Your task to perform on an android device: toggle translation in the chrome app Image 0: 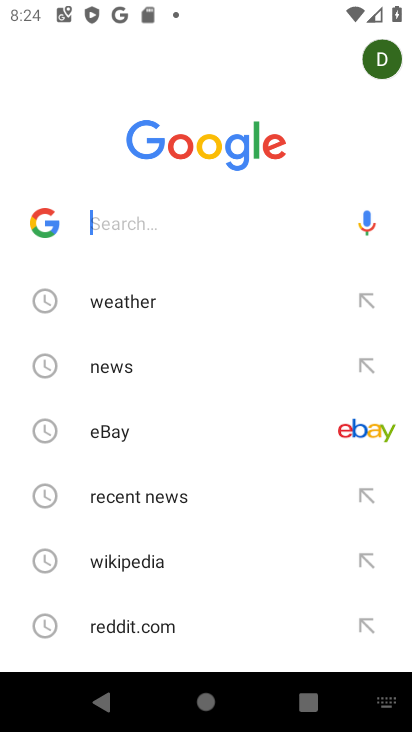
Step 0: press home button
Your task to perform on an android device: toggle translation in the chrome app Image 1: 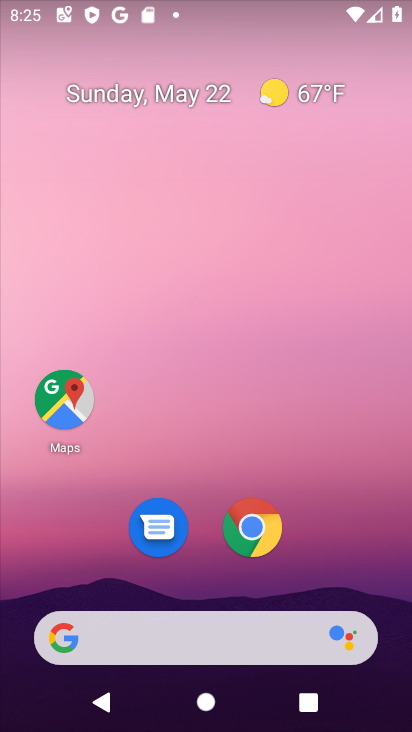
Step 1: click (250, 518)
Your task to perform on an android device: toggle translation in the chrome app Image 2: 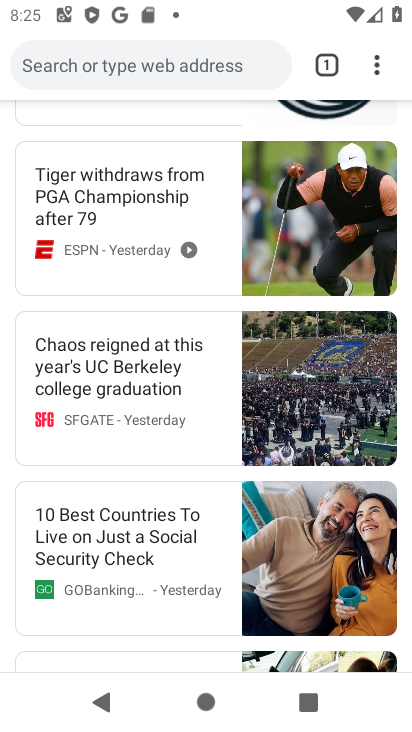
Step 2: click (372, 61)
Your task to perform on an android device: toggle translation in the chrome app Image 3: 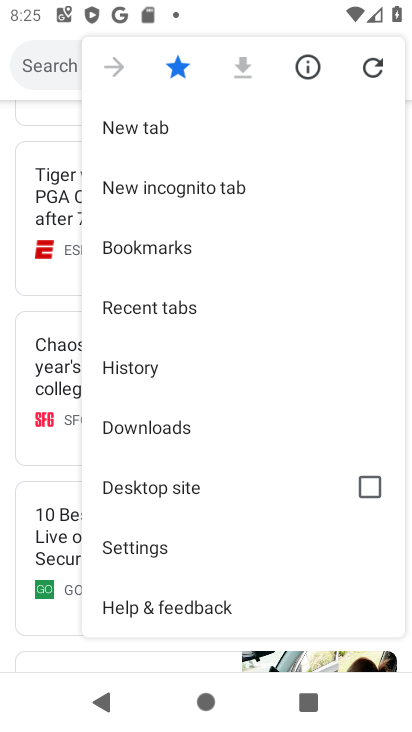
Step 3: click (187, 540)
Your task to perform on an android device: toggle translation in the chrome app Image 4: 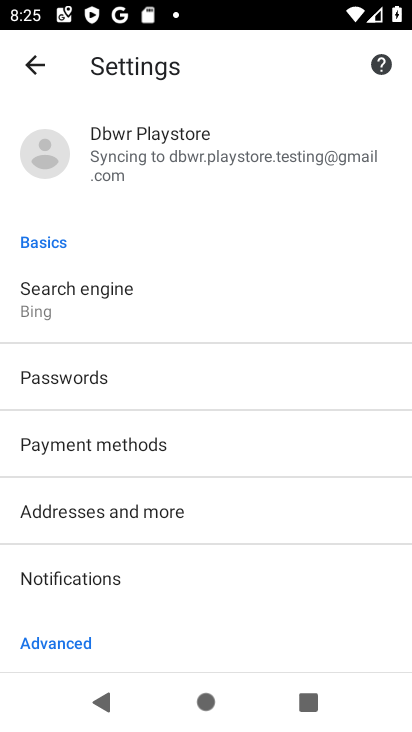
Step 4: drag from (156, 632) to (152, 138)
Your task to perform on an android device: toggle translation in the chrome app Image 5: 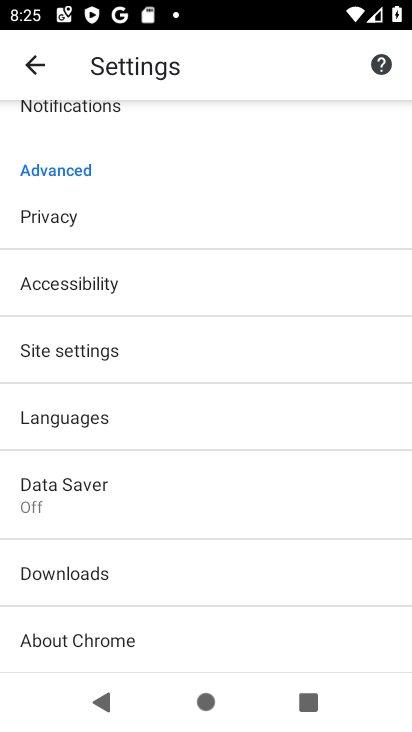
Step 5: click (132, 405)
Your task to perform on an android device: toggle translation in the chrome app Image 6: 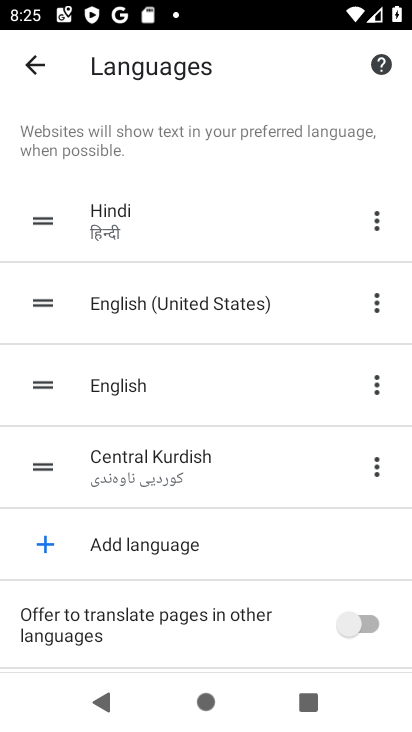
Step 6: click (366, 622)
Your task to perform on an android device: toggle translation in the chrome app Image 7: 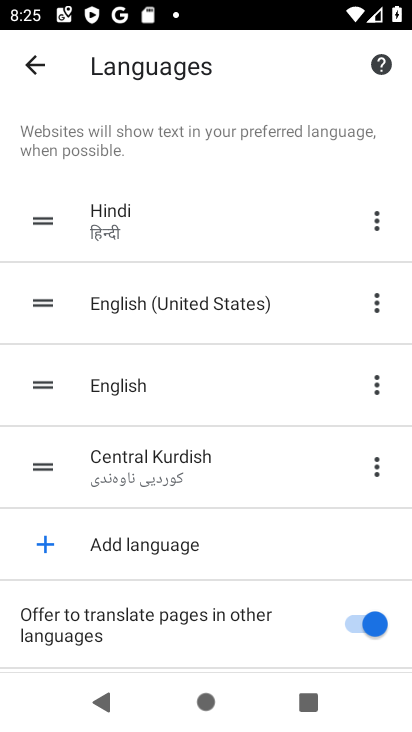
Step 7: task complete